Your task to perform on an android device: turn off wifi Image 0: 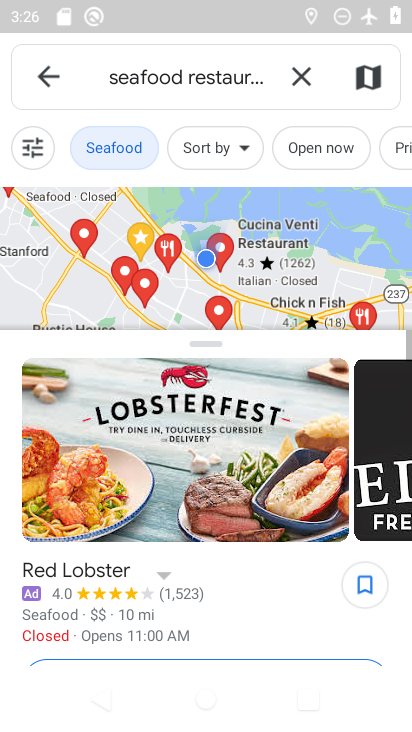
Step 0: press home button
Your task to perform on an android device: turn off wifi Image 1: 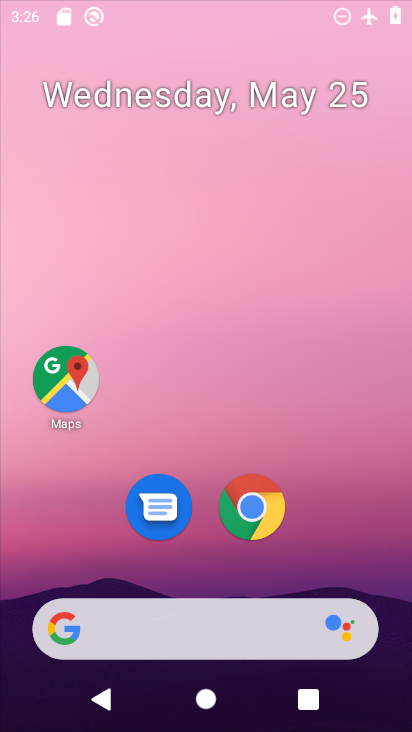
Step 1: drag from (221, 653) to (295, 220)
Your task to perform on an android device: turn off wifi Image 2: 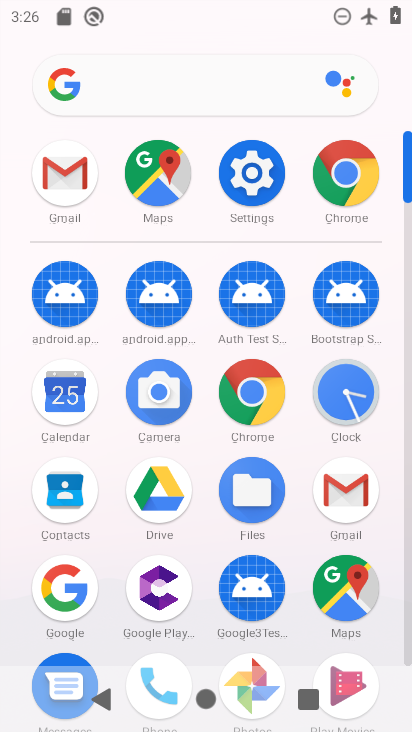
Step 2: click (262, 178)
Your task to perform on an android device: turn off wifi Image 3: 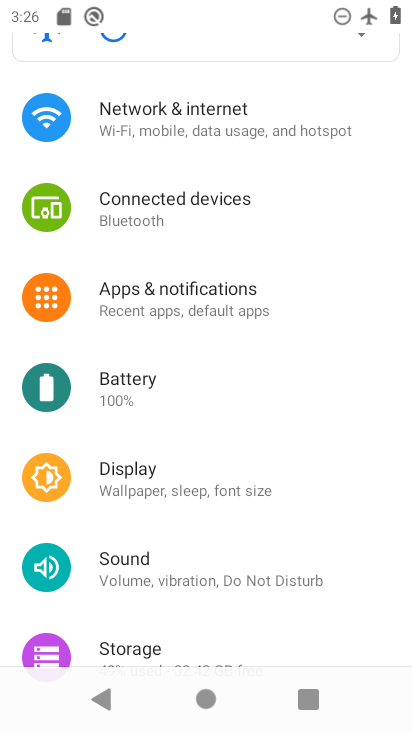
Step 3: drag from (248, 277) to (251, 597)
Your task to perform on an android device: turn off wifi Image 4: 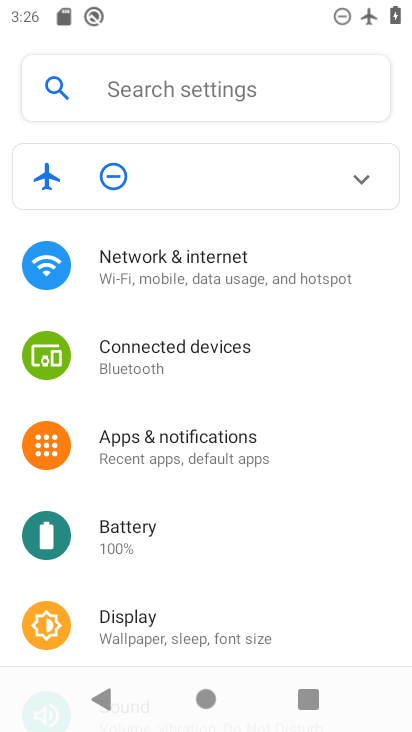
Step 4: click (229, 280)
Your task to perform on an android device: turn off wifi Image 5: 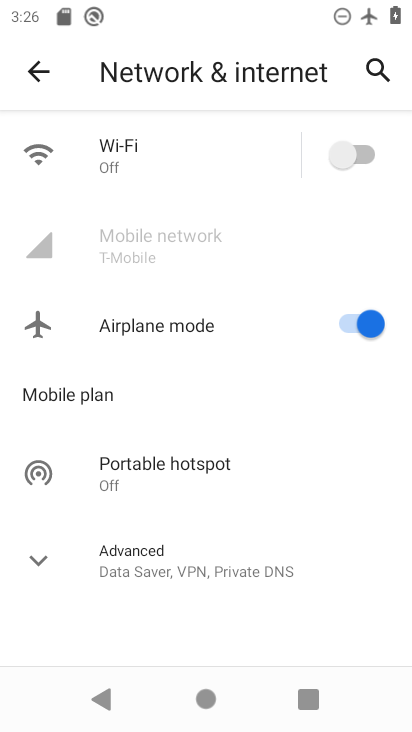
Step 5: task complete